Your task to perform on an android device: Open Yahoo.com Image 0: 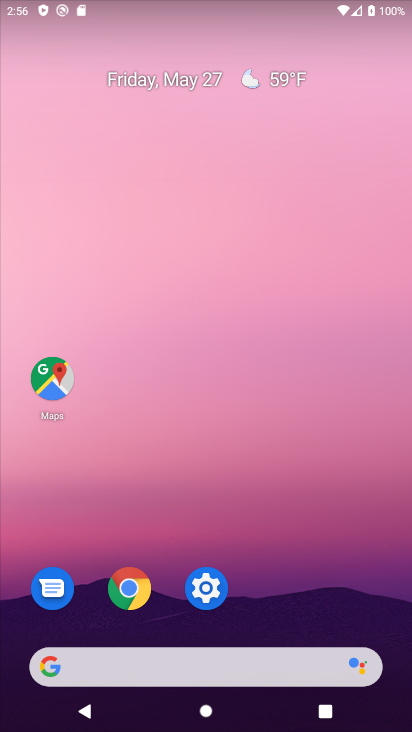
Step 0: drag from (297, 692) to (186, 24)
Your task to perform on an android device: Open Yahoo.com Image 1: 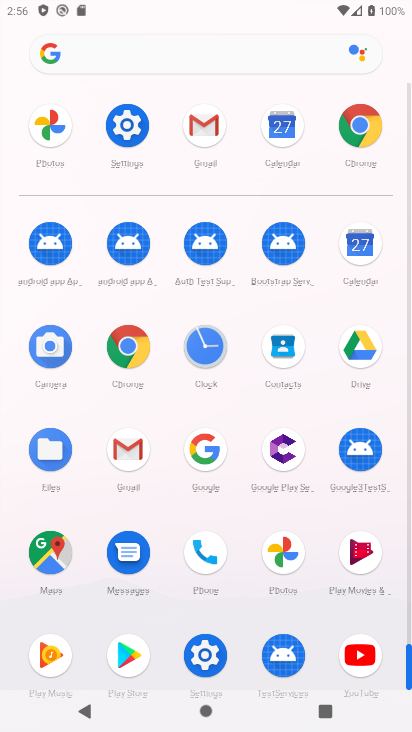
Step 1: click (362, 131)
Your task to perform on an android device: Open Yahoo.com Image 2: 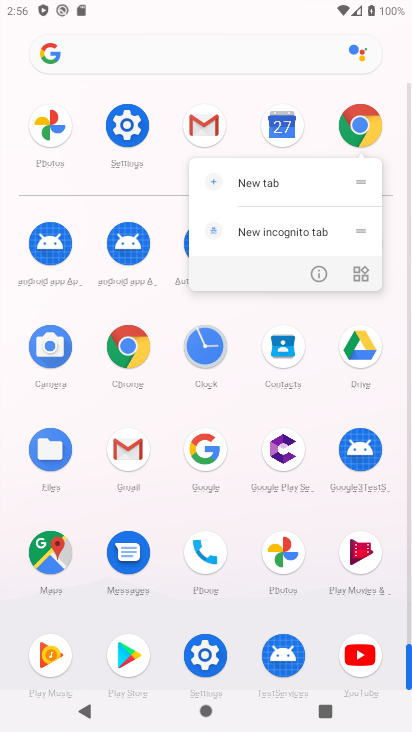
Step 2: click (362, 131)
Your task to perform on an android device: Open Yahoo.com Image 3: 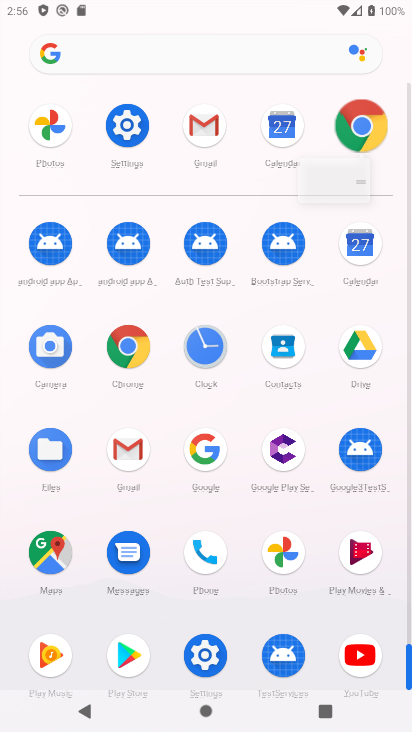
Step 3: click (362, 133)
Your task to perform on an android device: Open Yahoo.com Image 4: 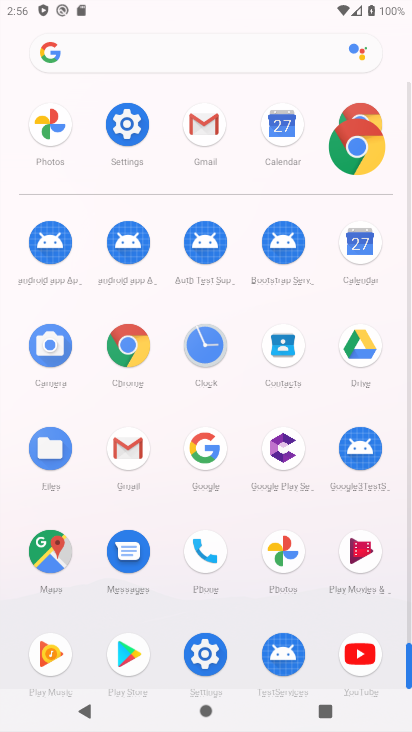
Step 4: click (362, 135)
Your task to perform on an android device: Open Yahoo.com Image 5: 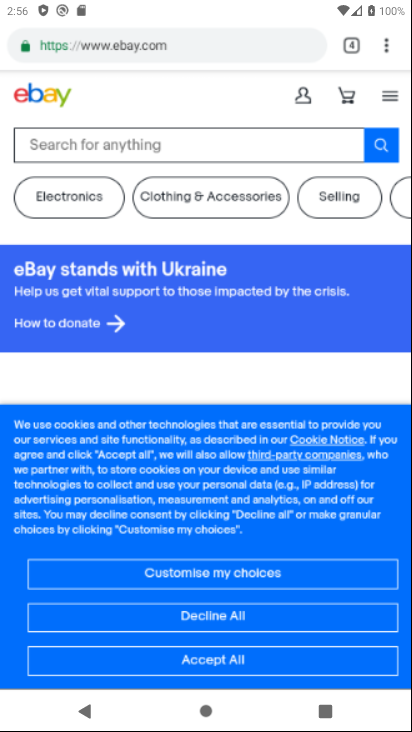
Step 5: click (362, 135)
Your task to perform on an android device: Open Yahoo.com Image 6: 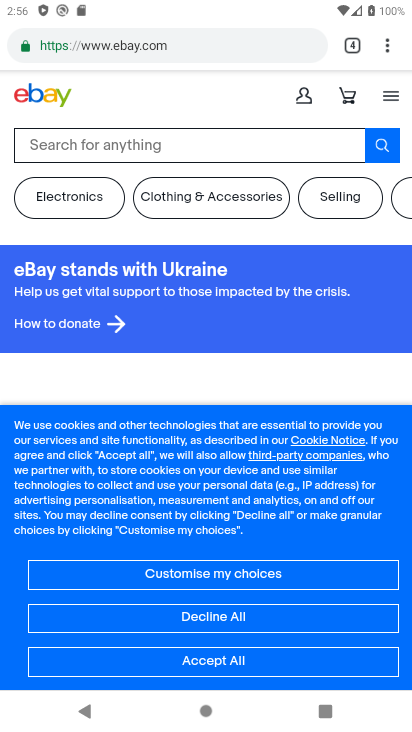
Step 6: click (362, 135)
Your task to perform on an android device: Open Yahoo.com Image 7: 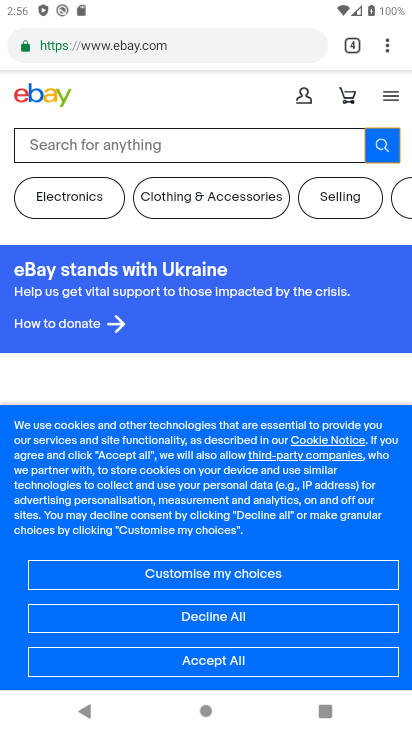
Step 7: drag from (385, 47) to (228, 98)
Your task to perform on an android device: Open Yahoo.com Image 8: 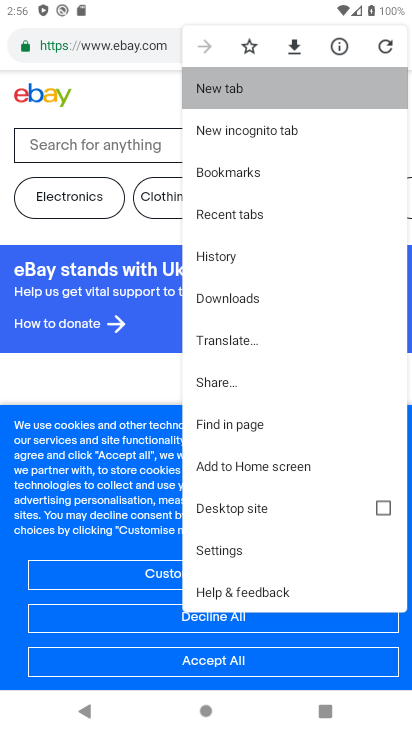
Step 8: click (229, 99)
Your task to perform on an android device: Open Yahoo.com Image 9: 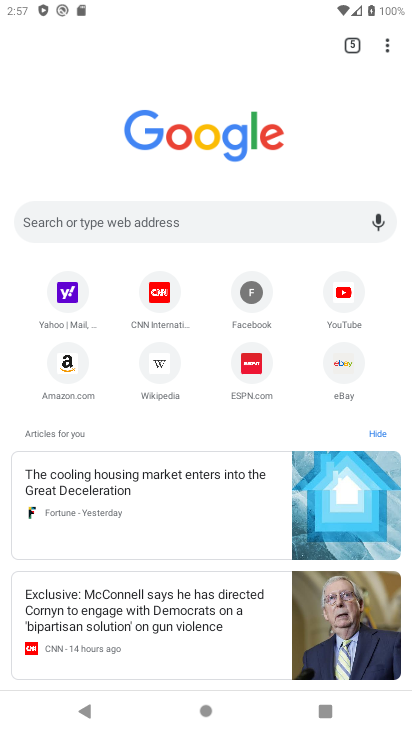
Step 9: click (68, 299)
Your task to perform on an android device: Open Yahoo.com Image 10: 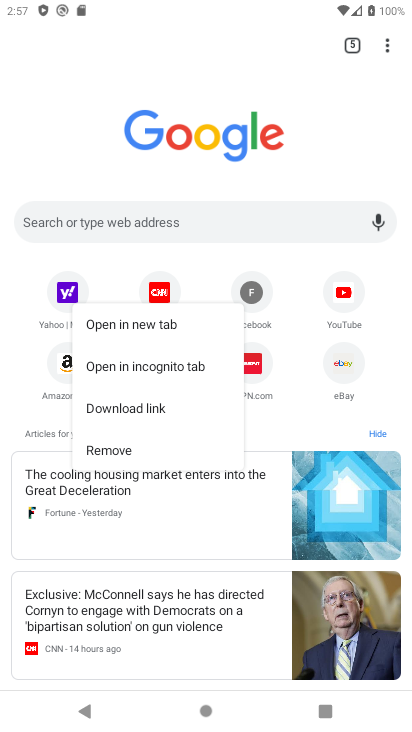
Step 10: click (67, 297)
Your task to perform on an android device: Open Yahoo.com Image 11: 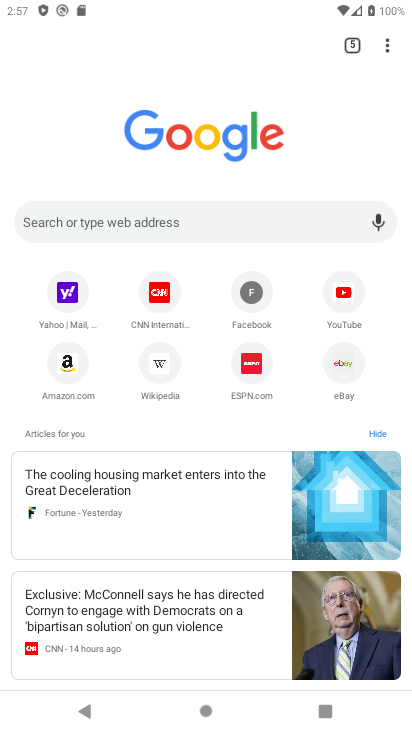
Step 11: click (66, 288)
Your task to perform on an android device: Open Yahoo.com Image 12: 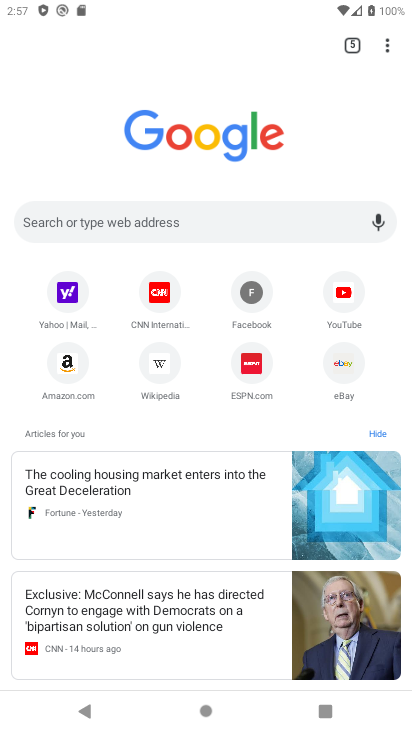
Step 12: click (66, 288)
Your task to perform on an android device: Open Yahoo.com Image 13: 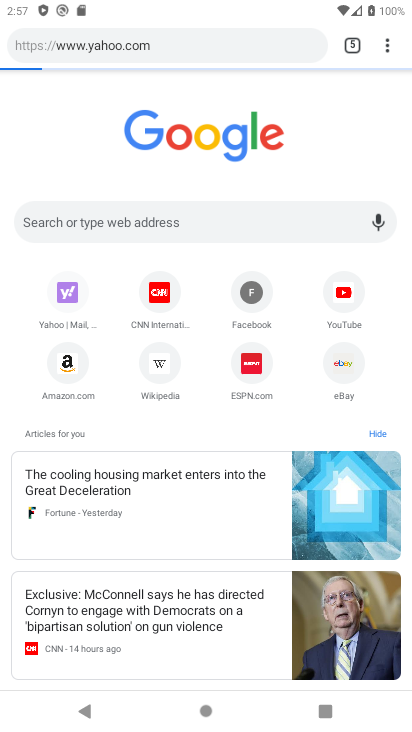
Step 13: click (66, 288)
Your task to perform on an android device: Open Yahoo.com Image 14: 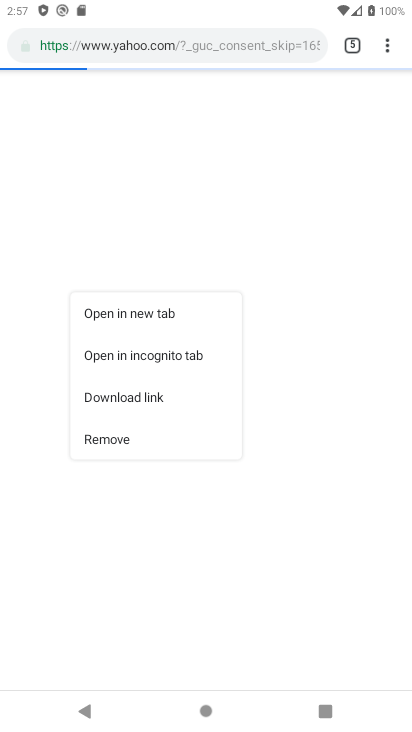
Step 14: click (65, 289)
Your task to perform on an android device: Open Yahoo.com Image 15: 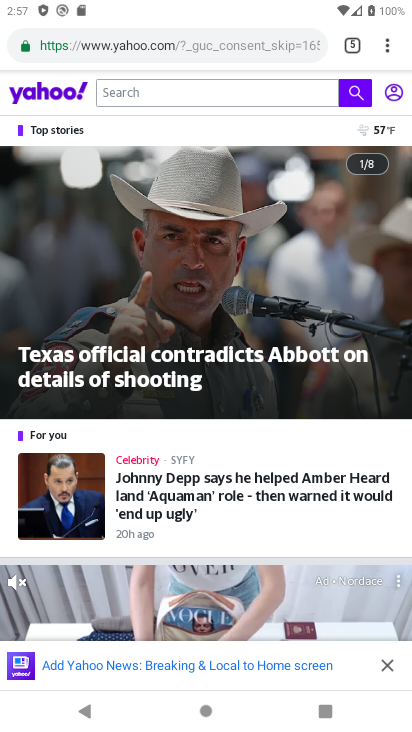
Step 15: task complete